Your task to perform on an android device: See recent photos Image 0: 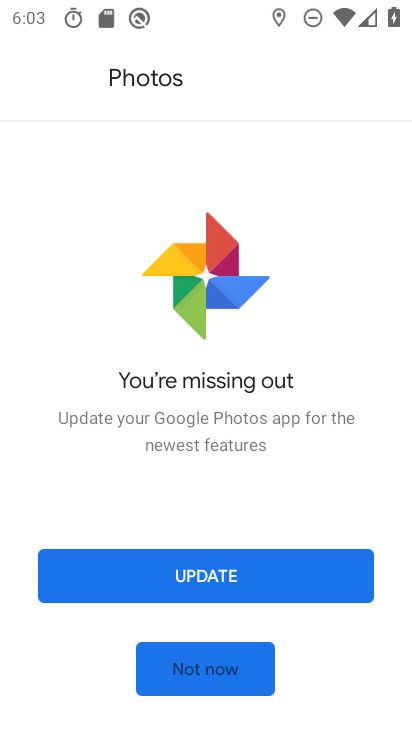
Step 0: press back button
Your task to perform on an android device: See recent photos Image 1: 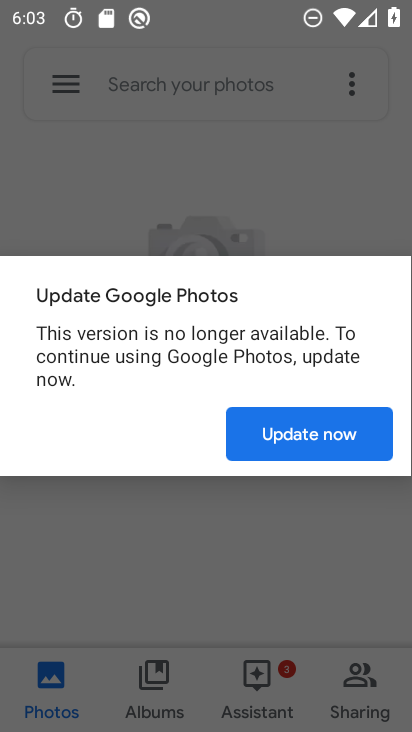
Step 1: click (265, 448)
Your task to perform on an android device: See recent photos Image 2: 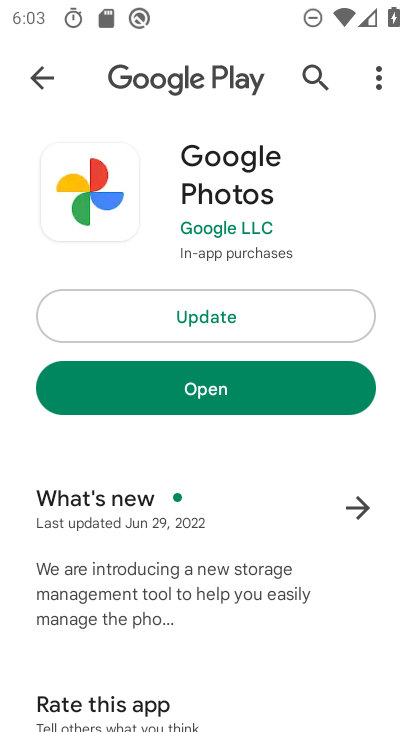
Step 2: click (181, 392)
Your task to perform on an android device: See recent photos Image 3: 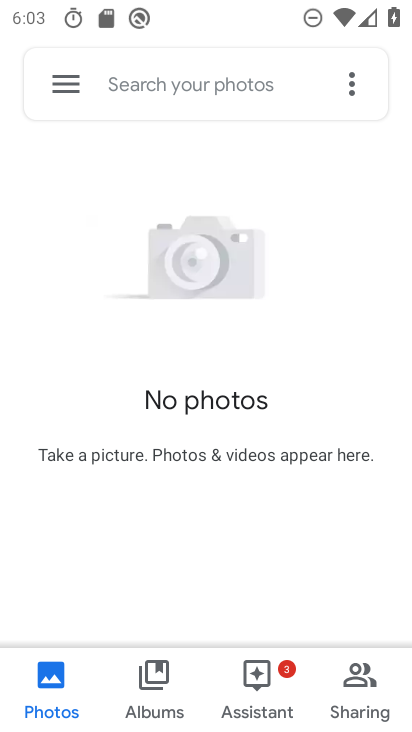
Step 3: click (16, 698)
Your task to perform on an android device: See recent photos Image 4: 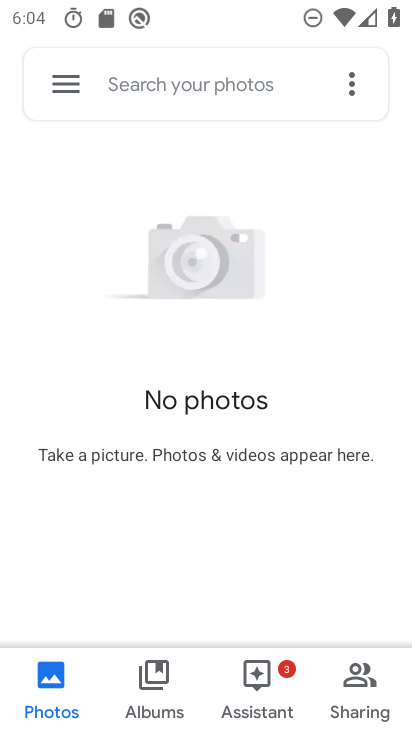
Step 4: task complete